Your task to perform on an android device: Search for sushi restaurants on Maps Image 0: 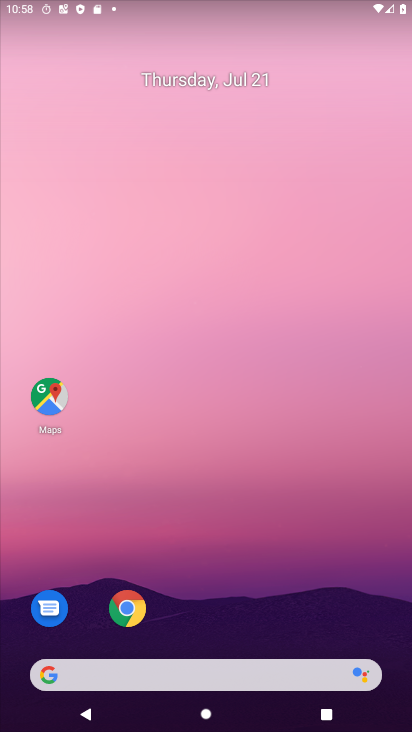
Step 0: click (50, 398)
Your task to perform on an android device: Search for sushi restaurants on Maps Image 1: 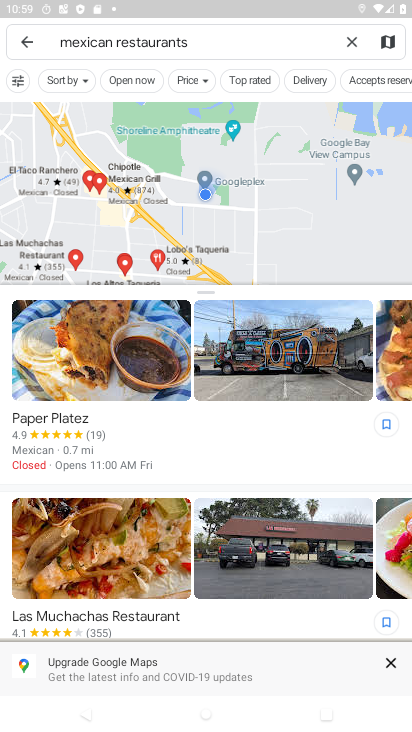
Step 1: click (352, 44)
Your task to perform on an android device: Search for sushi restaurants on Maps Image 2: 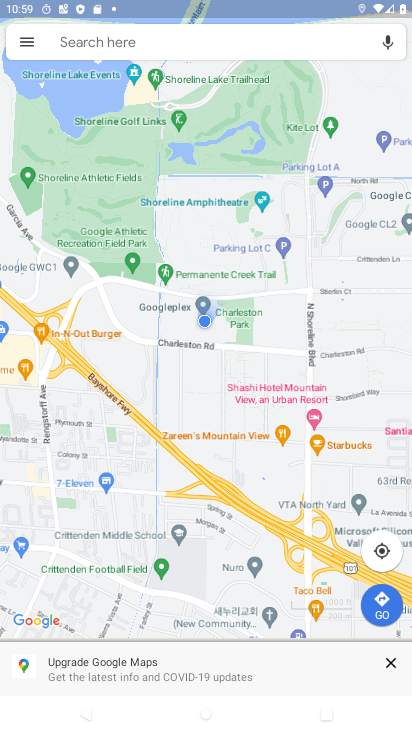
Step 2: click (174, 42)
Your task to perform on an android device: Search for sushi restaurants on Maps Image 3: 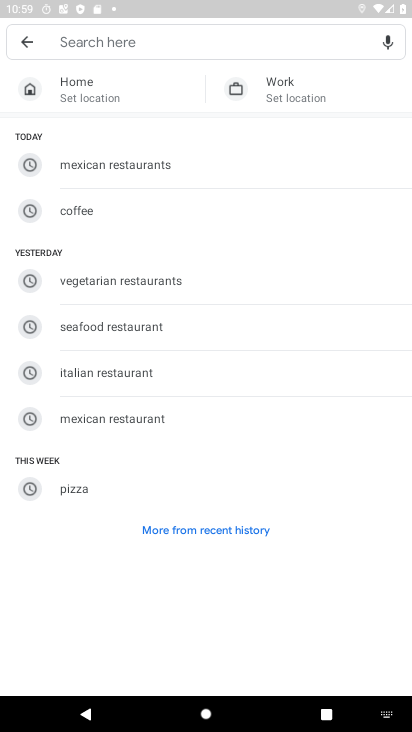
Step 3: type "sushi restaurants"
Your task to perform on an android device: Search for sushi restaurants on Maps Image 4: 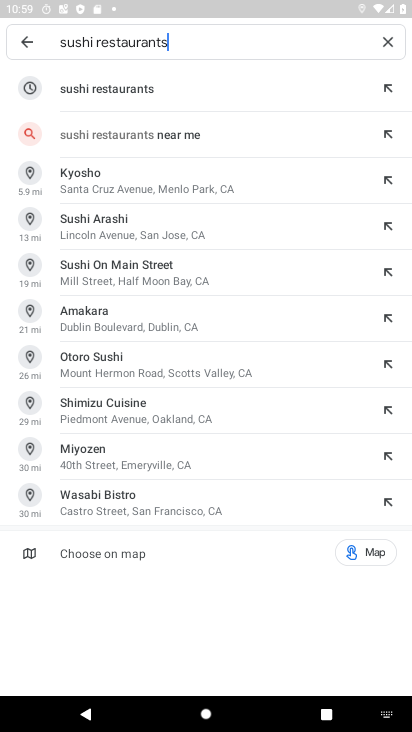
Step 4: click (97, 80)
Your task to perform on an android device: Search for sushi restaurants on Maps Image 5: 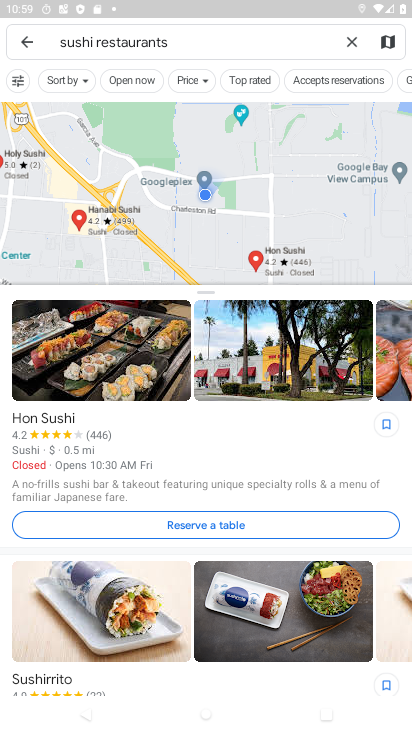
Step 5: task complete